Your task to perform on an android device: Open the contacts Image 0: 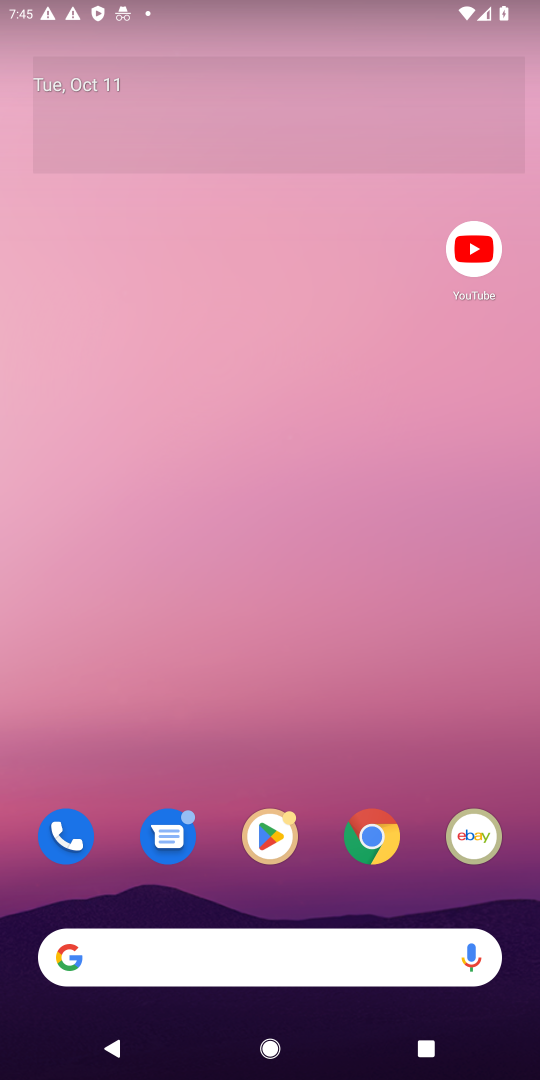
Step 0: drag from (321, 961) to (455, 0)
Your task to perform on an android device: Open the contacts Image 1: 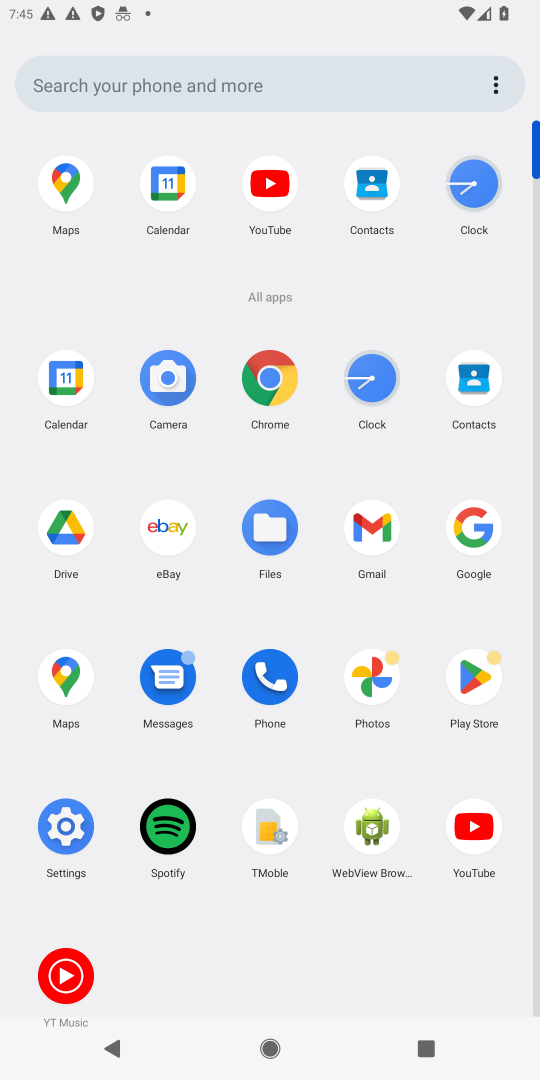
Step 1: click (477, 382)
Your task to perform on an android device: Open the contacts Image 2: 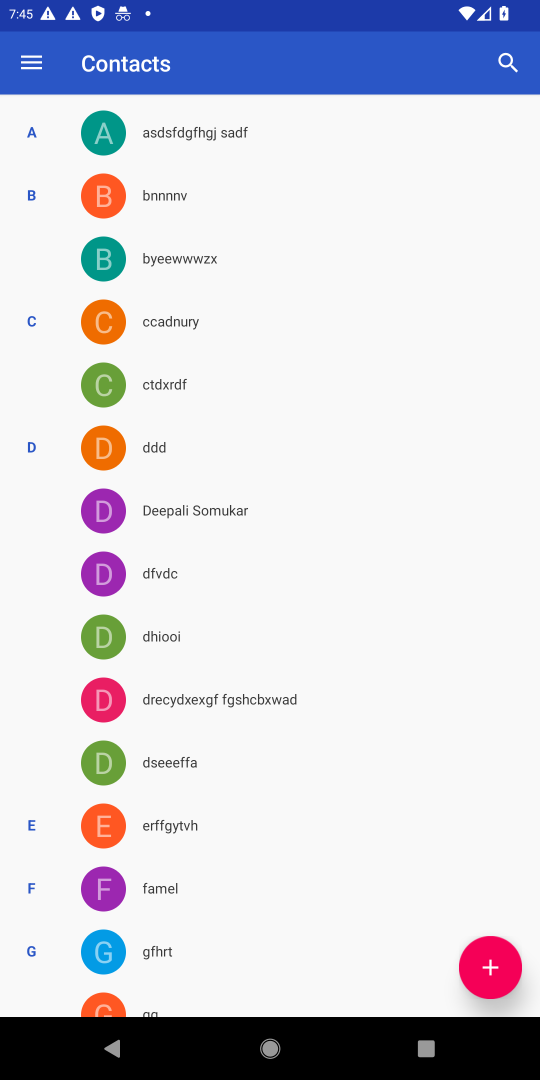
Step 2: task complete